Your task to perform on an android device: Go to network settings Image 0: 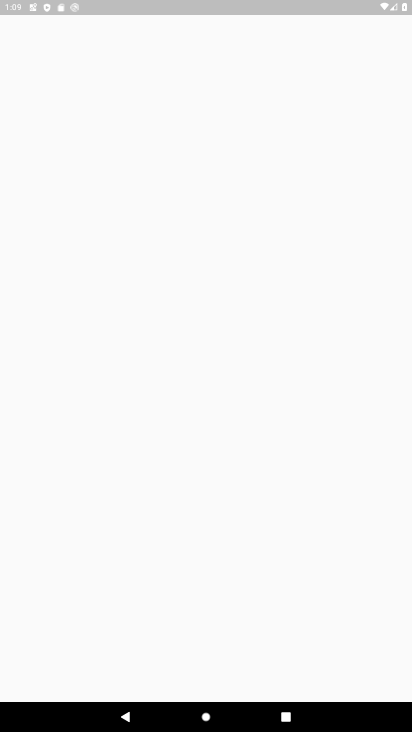
Step 0: drag from (180, 661) to (297, 316)
Your task to perform on an android device: Go to network settings Image 1: 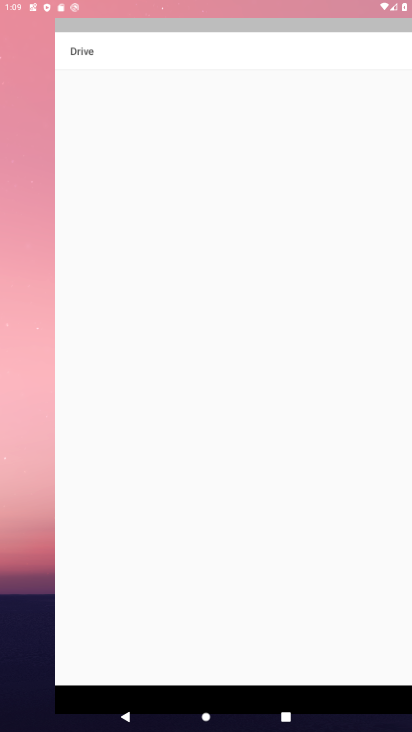
Step 1: press home button
Your task to perform on an android device: Go to network settings Image 2: 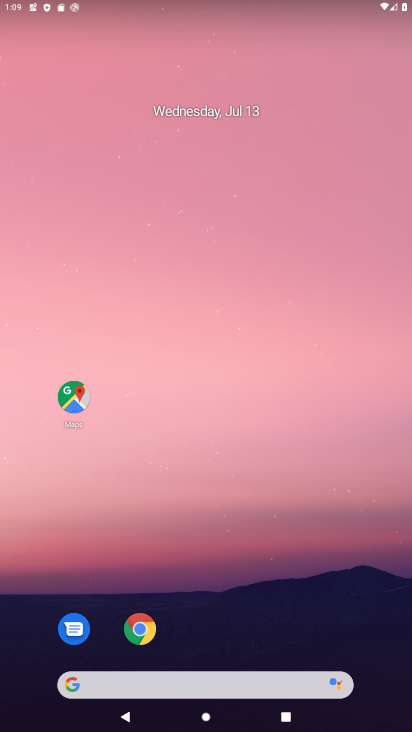
Step 2: drag from (214, 554) to (241, 197)
Your task to perform on an android device: Go to network settings Image 3: 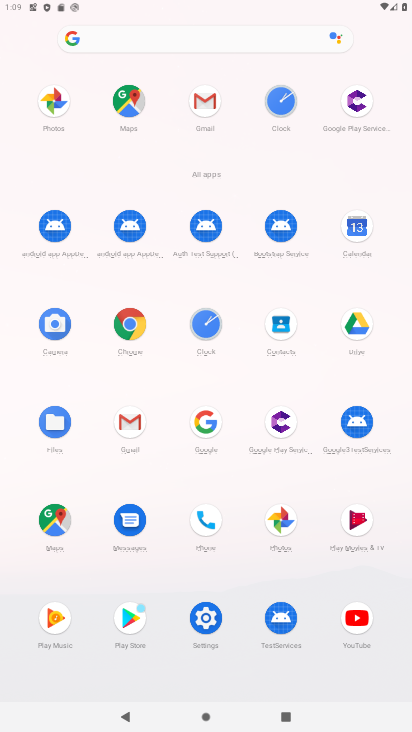
Step 3: click (176, 616)
Your task to perform on an android device: Go to network settings Image 4: 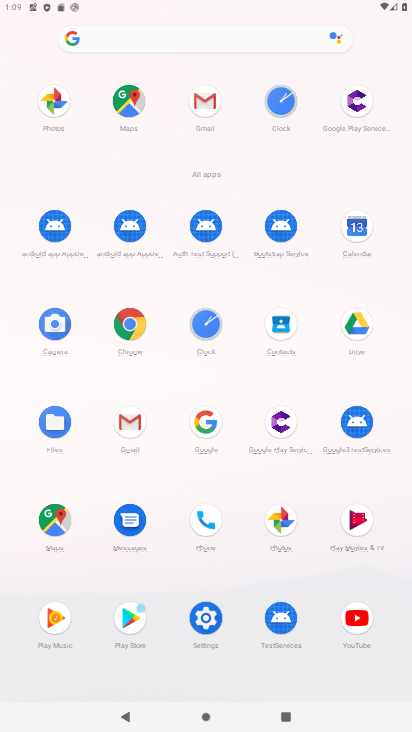
Step 4: click (205, 621)
Your task to perform on an android device: Go to network settings Image 5: 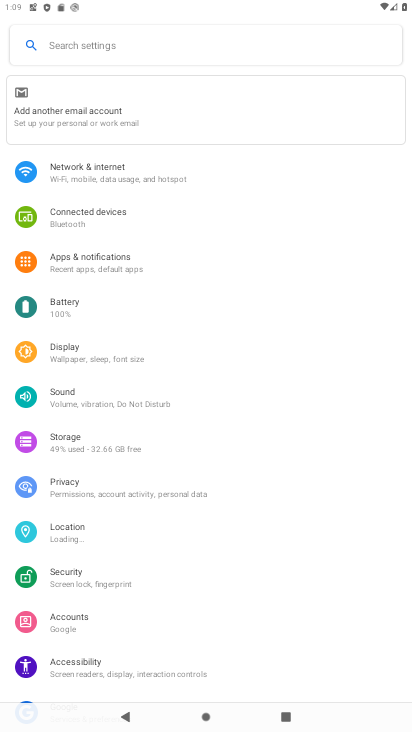
Step 5: click (133, 181)
Your task to perform on an android device: Go to network settings Image 6: 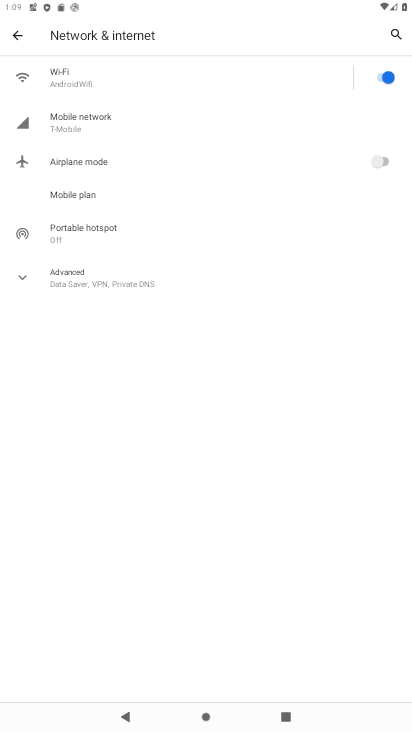
Step 6: task complete